Your task to perform on an android device: What is the recent news? Image 0: 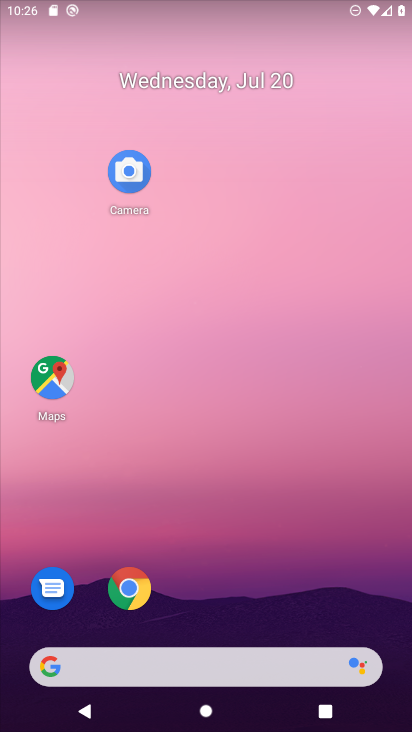
Step 0: click (52, 665)
Your task to perform on an android device: What is the recent news? Image 1: 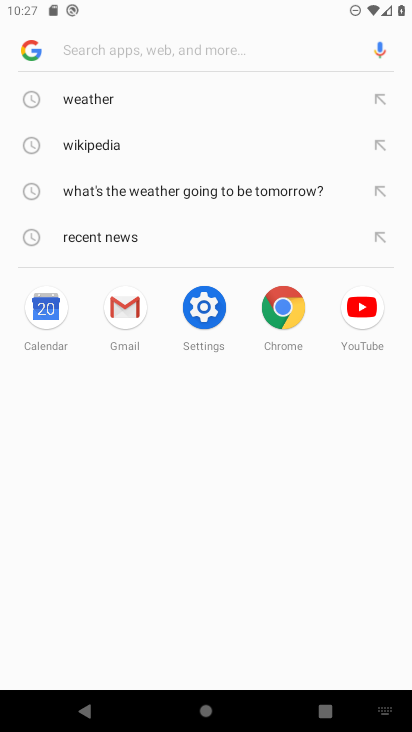
Step 1: click (99, 233)
Your task to perform on an android device: What is the recent news? Image 2: 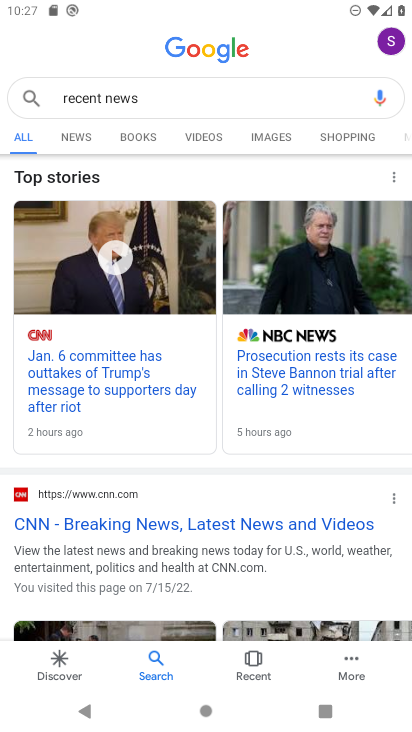
Step 2: task complete